Your task to perform on an android device: set an alarm Image 0: 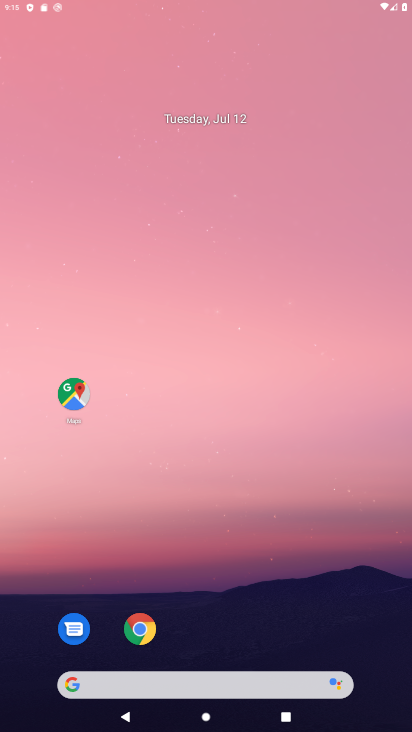
Step 0: click (304, 164)
Your task to perform on an android device: set an alarm Image 1: 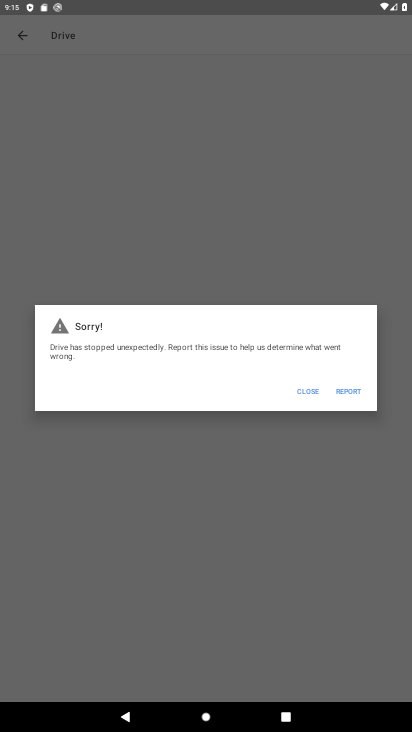
Step 1: press home button
Your task to perform on an android device: set an alarm Image 2: 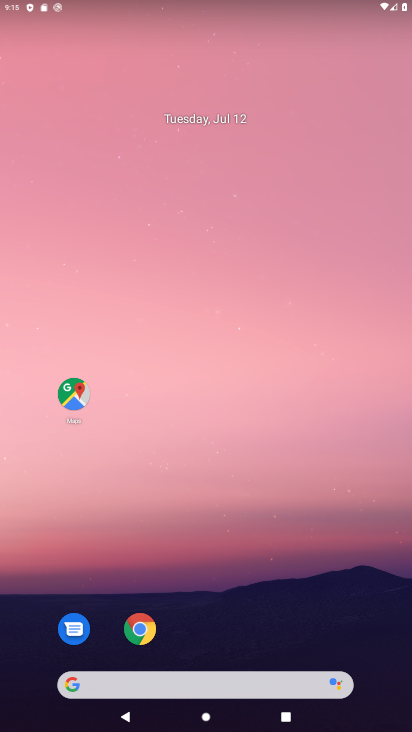
Step 2: drag from (353, 629) to (320, 117)
Your task to perform on an android device: set an alarm Image 3: 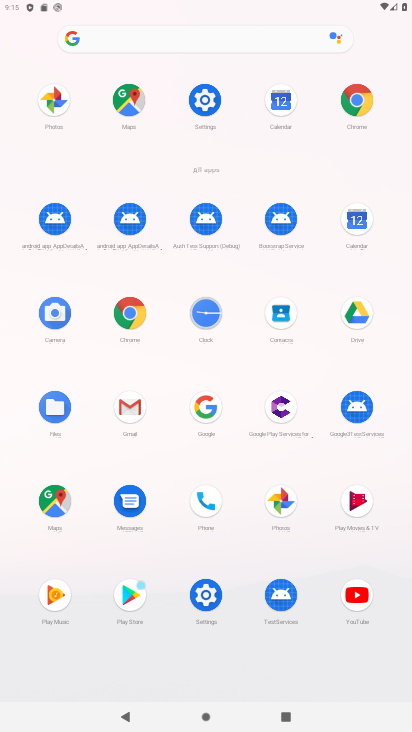
Step 3: click (204, 316)
Your task to perform on an android device: set an alarm Image 4: 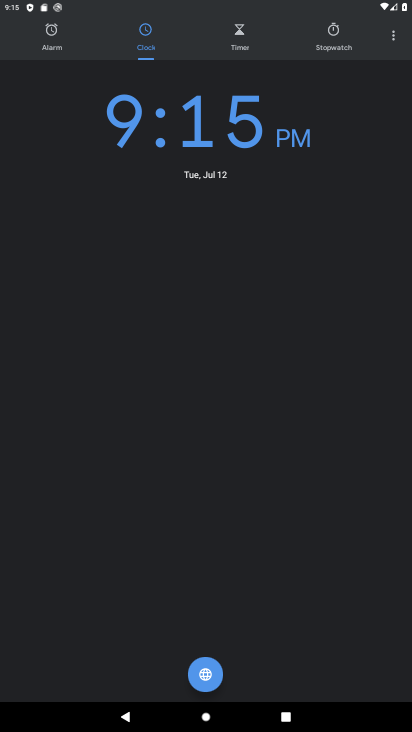
Step 4: click (54, 34)
Your task to perform on an android device: set an alarm Image 5: 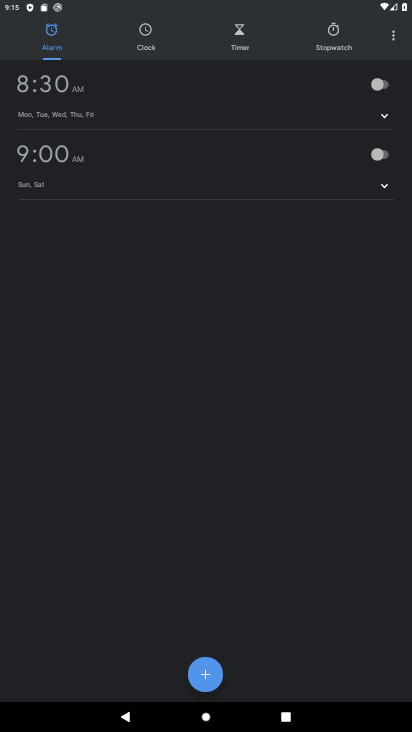
Step 5: click (46, 82)
Your task to perform on an android device: set an alarm Image 6: 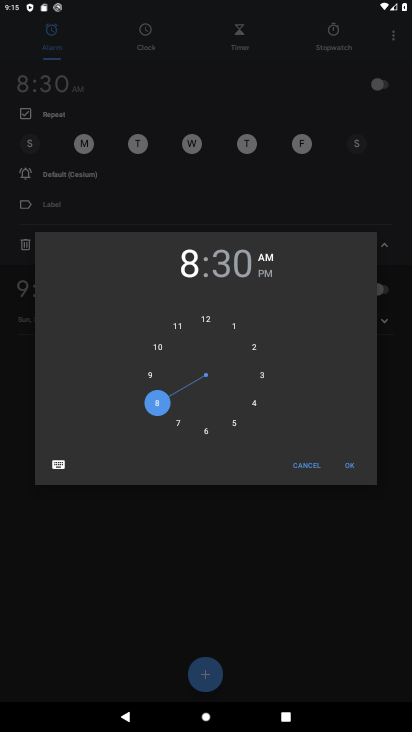
Step 6: click (206, 435)
Your task to perform on an android device: set an alarm Image 7: 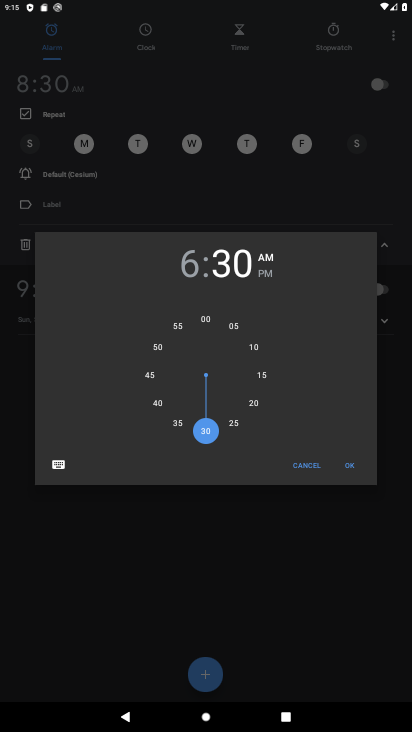
Step 7: click (259, 373)
Your task to perform on an android device: set an alarm Image 8: 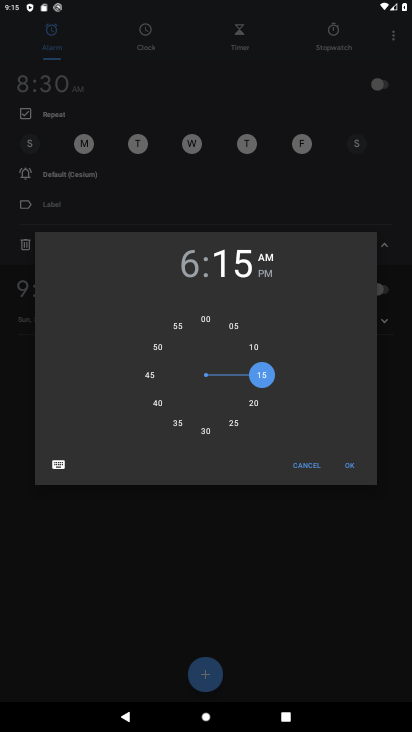
Step 8: click (353, 469)
Your task to perform on an android device: set an alarm Image 9: 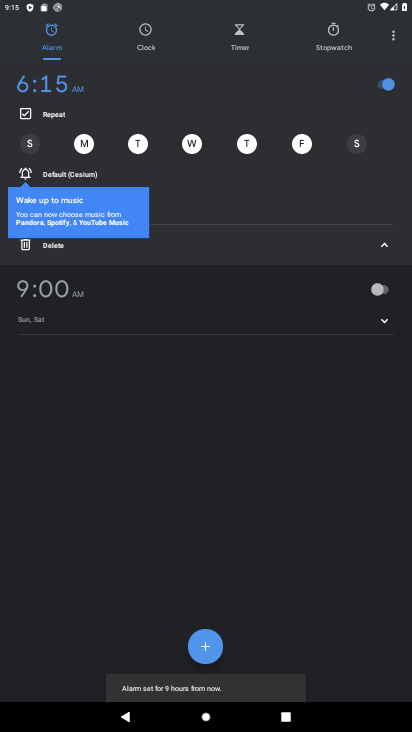
Step 9: click (361, 150)
Your task to perform on an android device: set an alarm Image 10: 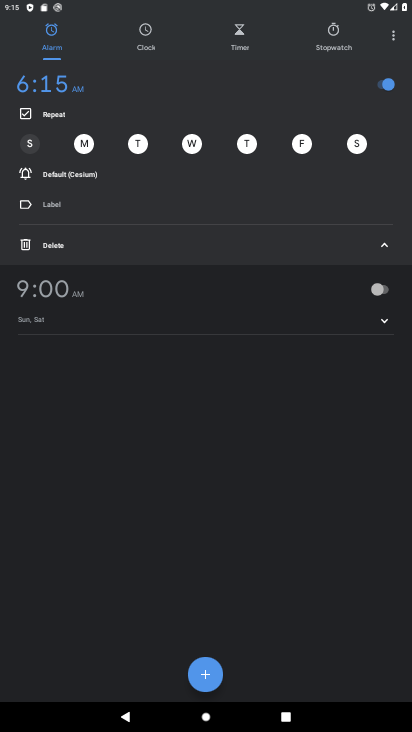
Step 10: click (381, 249)
Your task to perform on an android device: set an alarm Image 11: 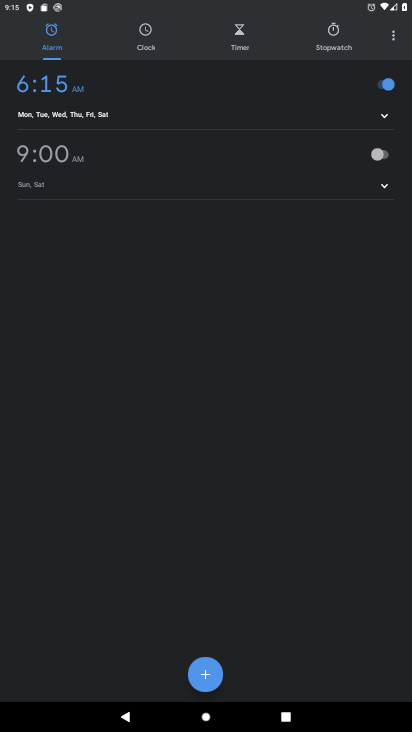
Step 11: task complete